Your task to perform on an android device: turn pop-ups on in chrome Image 0: 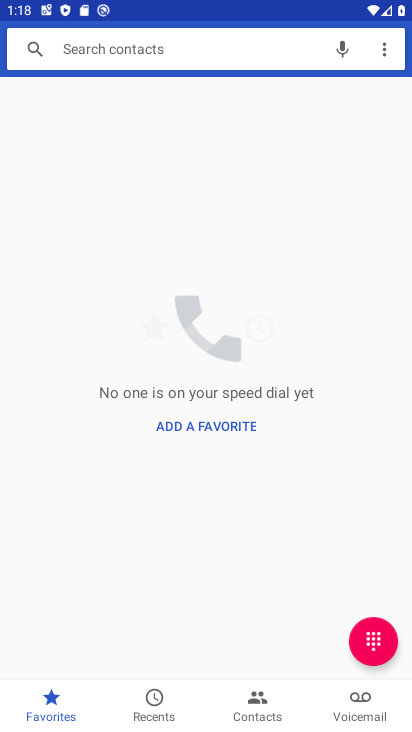
Step 0: press home button
Your task to perform on an android device: turn pop-ups on in chrome Image 1: 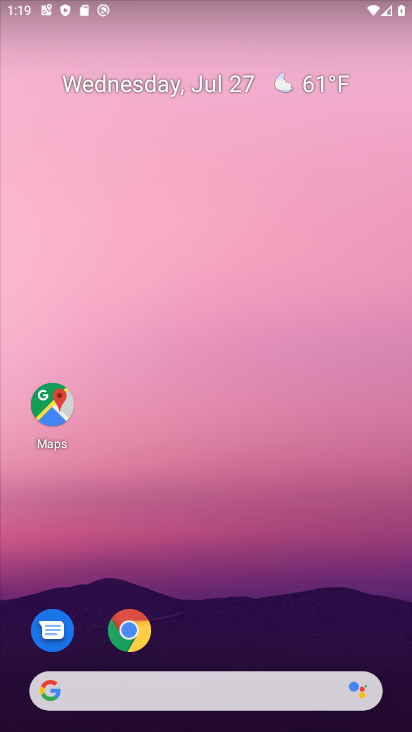
Step 1: click (130, 630)
Your task to perform on an android device: turn pop-ups on in chrome Image 2: 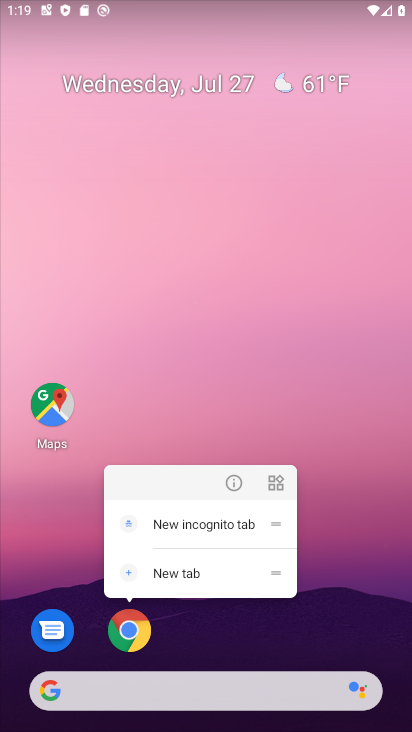
Step 2: click (130, 635)
Your task to perform on an android device: turn pop-ups on in chrome Image 3: 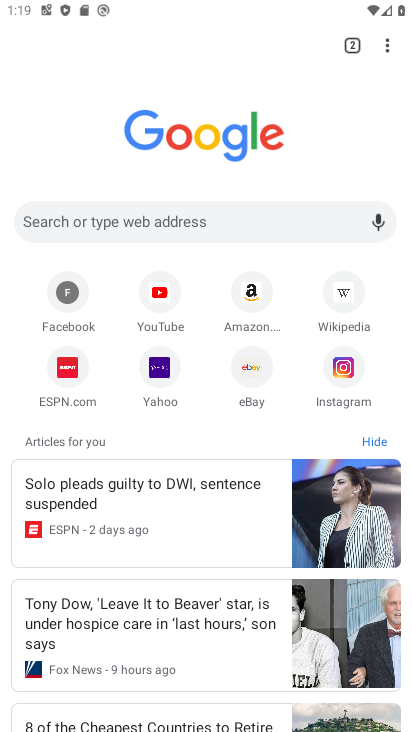
Step 3: click (388, 50)
Your task to perform on an android device: turn pop-ups on in chrome Image 4: 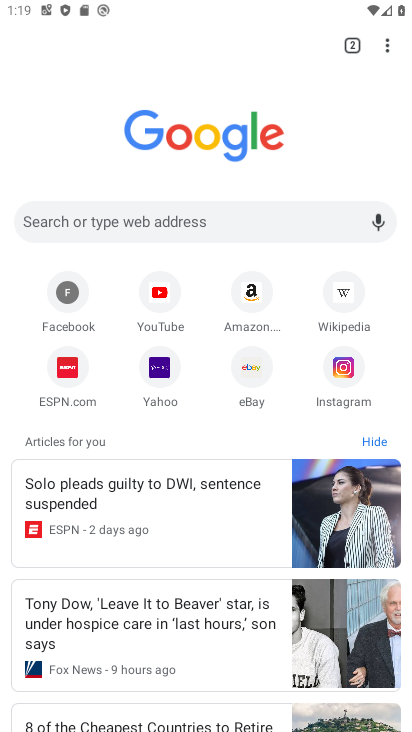
Step 4: click (386, 44)
Your task to perform on an android device: turn pop-ups on in chrome Image 5: 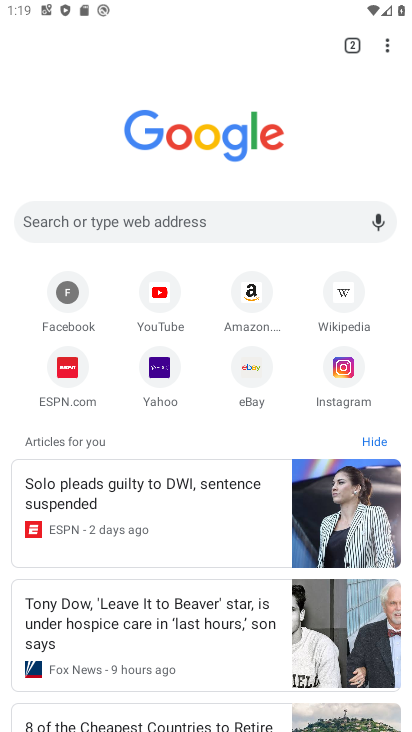
Step 5: click (384, 39)
Your task to perform on an android device: turn pop-ups on in chrome Image 6: 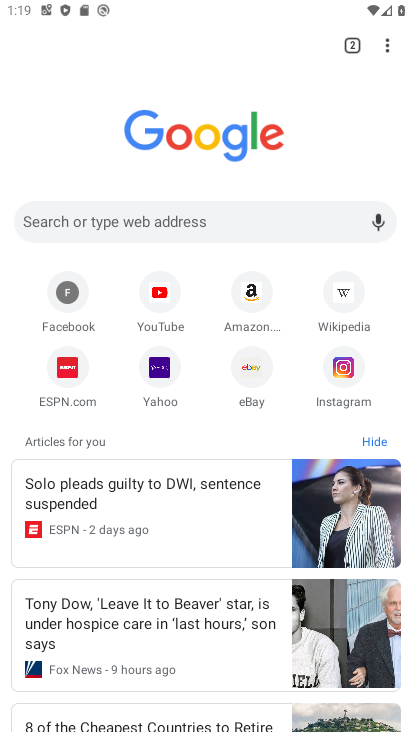
Step 6: click (389, 45)
Your task to perform on an android device: turn pop-ups on in chrome Image 7: 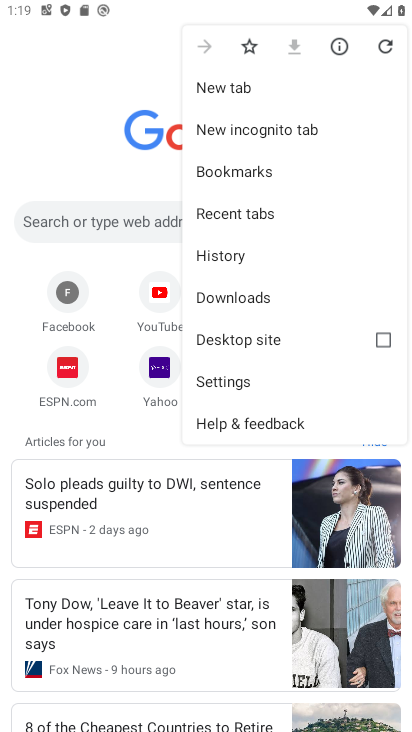
Step 7: click (233, 380)
Your task to perform on an android device: turn pop-ups on in chrome Image 8: 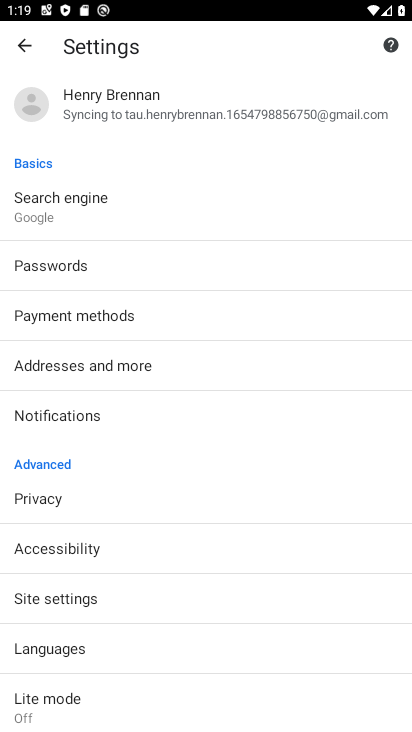
Step 8: click (51, 598)
Your task to perform on an android device: turn pop-ups on in chrome Image 9: 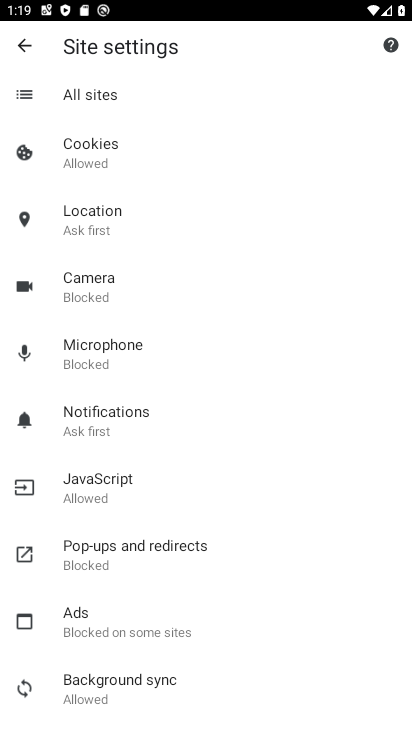
Step 9: click (126, 550)
Your task to perform on an android device: turn pop-ups on in chrome Image 10: 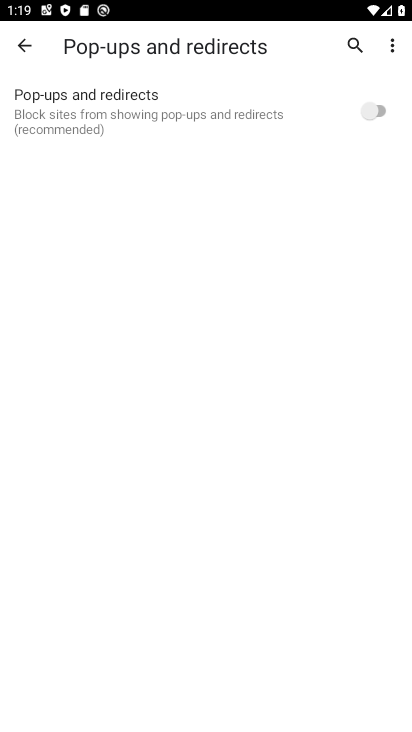
Step 10: click (378, 112)
Your task to perform on an android device: turn pop-ups on in chrome Image 11: 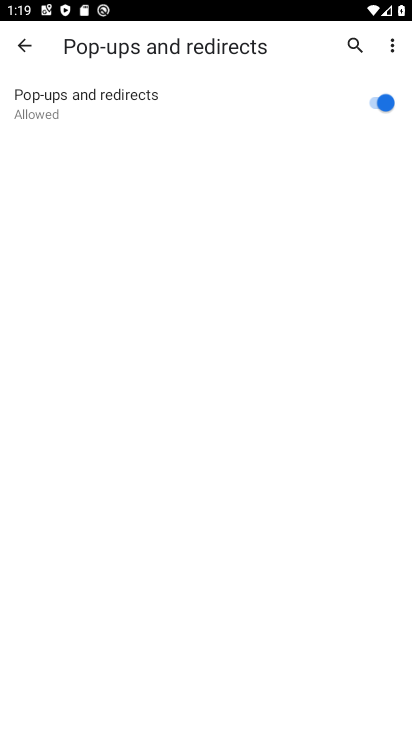
Step 11: task complete